Your task to perform on an android device: Go to Yahoo.com Image 0: 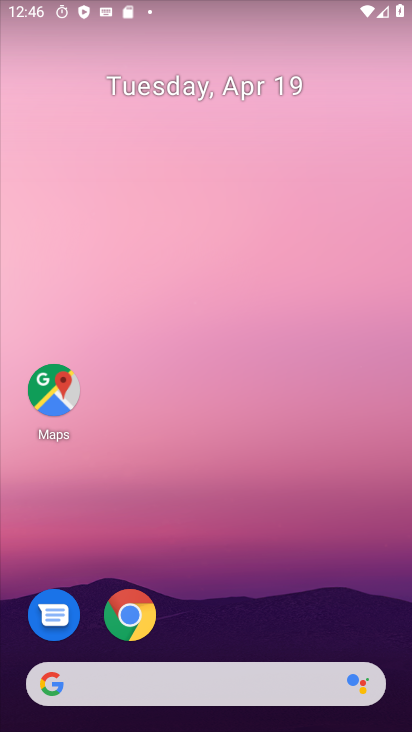
Step 0: drag from (385, 604) to (374, 68)
Your task to perform on an android device: Go to Yahoo.com Image 1: 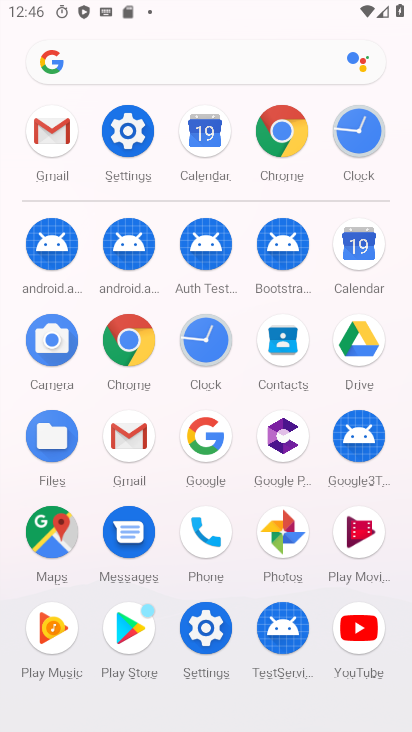
Step 1: click (124, 351)
Your task to perform on an android device: Go to Yahoo.com Image 2: 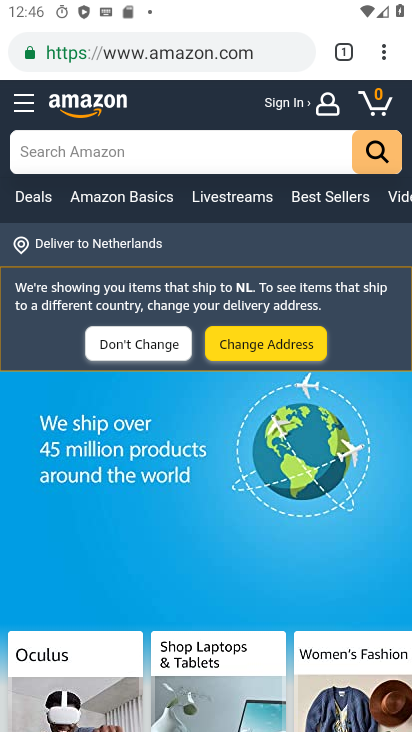
Step 2: press back button
Your task to perform on an android device: Go to Yahoo.com Image 3: 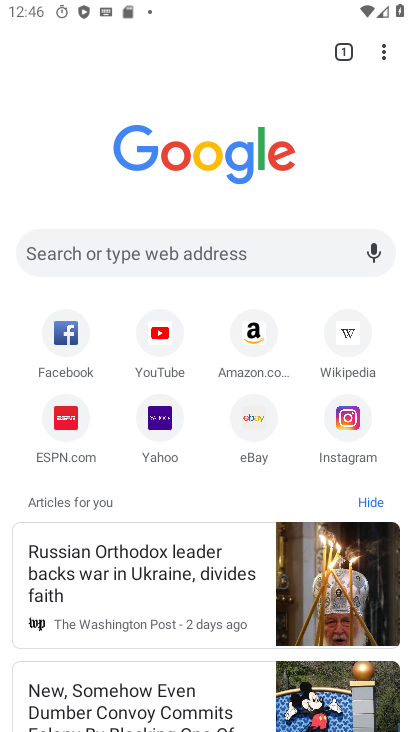
Step 3: click (156, 419)
Your task to perform on an android device: Go to Yahoo.com Image 4: 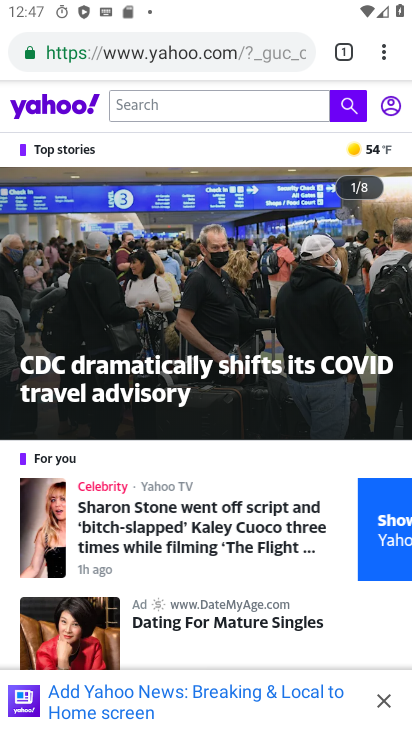
Step 4: task complete